Your task to perform on an android device: Search for Mexican restaurants on Maps Image 0: 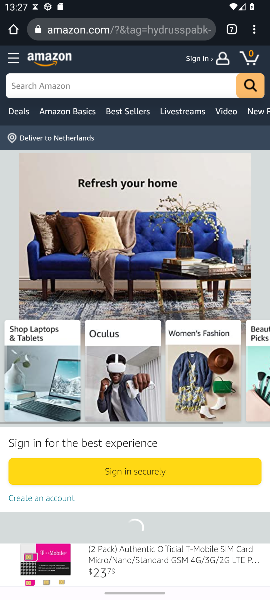
Step 0: press home button
Your task to perform on an android device: Search for Mexican restaurants on Maps Image 1: 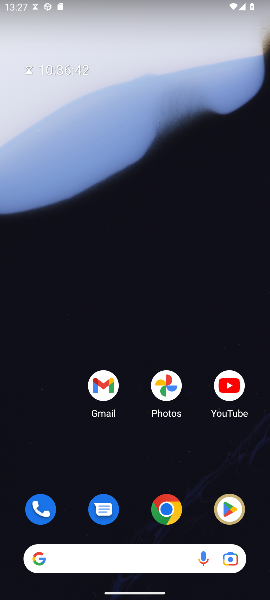
Step 1: drag from (131, 522) to (169, 135)
Your task to perform on an android device: Search for Mexican restaurants on Maps Image 2: 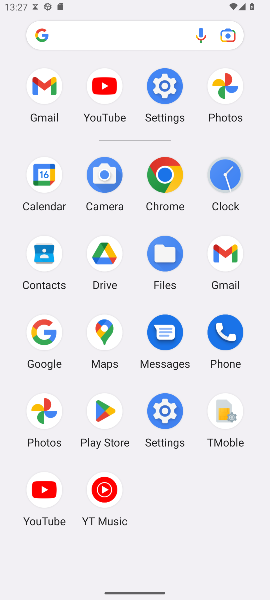
Step 2: click (106, 333)
Your task to perform on an android device: Search for Mexican restaurants on Maps Image 3: 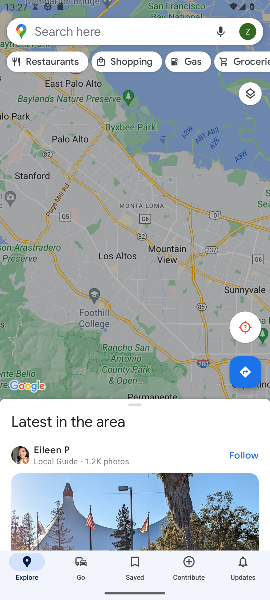
Step 3: click (140, 27)
Your task to perform on an android device: Search for Mexican restaurants on Maps Image 4: 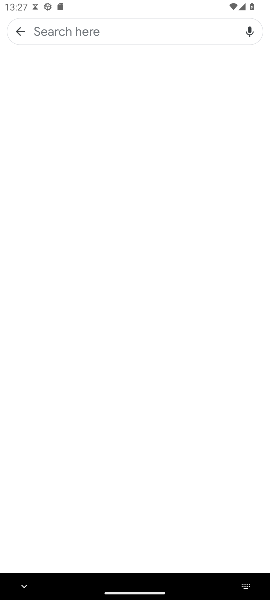
Step 4: click (94, 23)
Your task to perform on an android device: Search for Mexican restaurants on Maps Image 5: 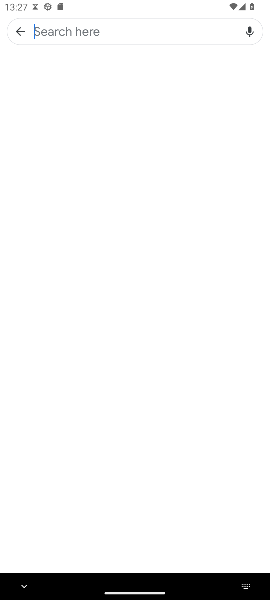
Step 5: click (119, 31)
Your task to perform on an android device: Search for Mexican restaurants on Maps Image 6: 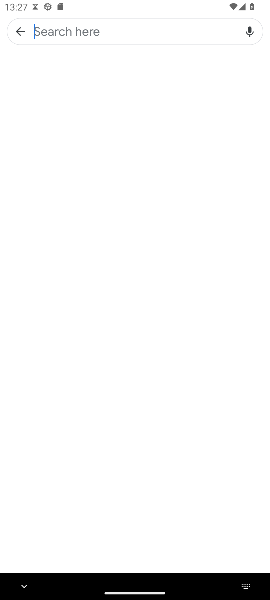
Step 6: press back button
Your task to perform on an android device: Search for Mexican restaurants on Maps Image 7: 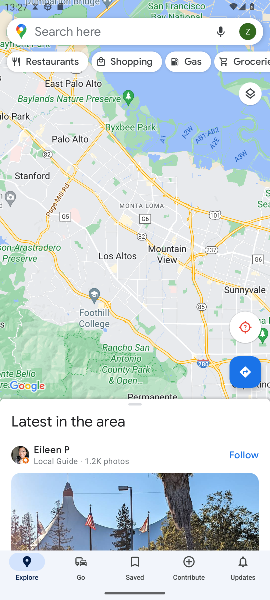
Step 7: click (75, 28)
Your task to perform on an android device: Search for Mexican restaurants on Maps Image 8: 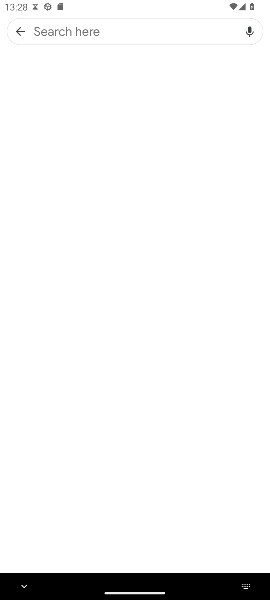
Step 8: type "Mexican restaurants "
Your task to perform on an android device: Search for Mexican restaurants on Maps Image 9: 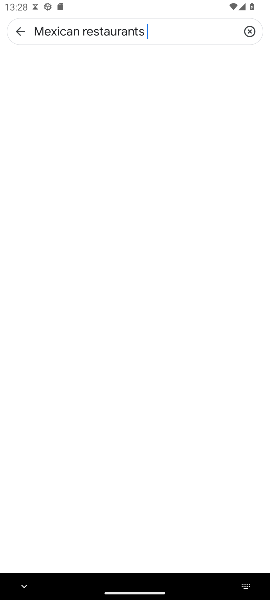
Step 9: press enter
Your task to perform on an android device: Search for Mexican restaurants on Maps Image 10: 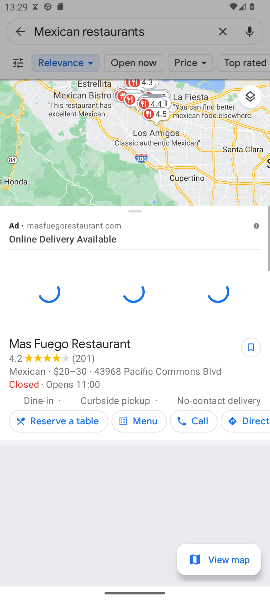
Step 10: click (157, 20)
Your task to perform on an android device: Search for Mexican restaurants on Maps Image 11: 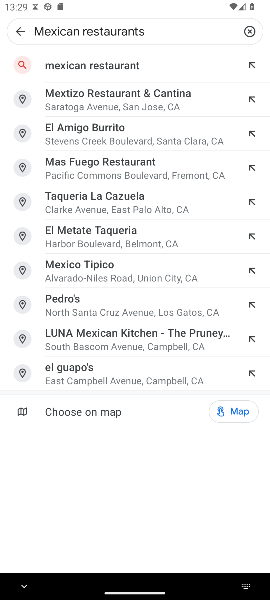
Step 11: click (88, 67)
Your task to perform on an android device: Search for Mexican restaurants on Maps Image 12: 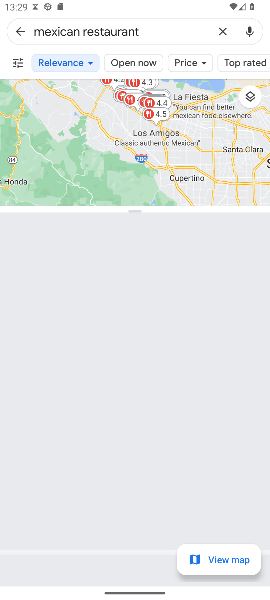
Step 12: task complete